Your task to perform on an android device: Open the stopwatch Image 0: 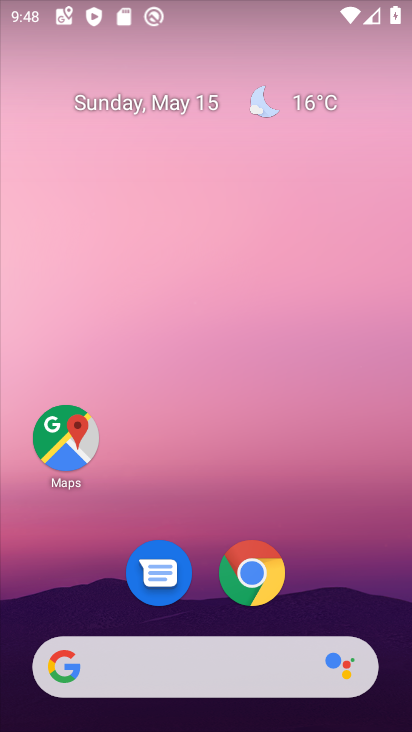
Step 0: drag from (346, 594) to (344, 63)
Your task to perform on an android device: Open the stopwatch Image 1: 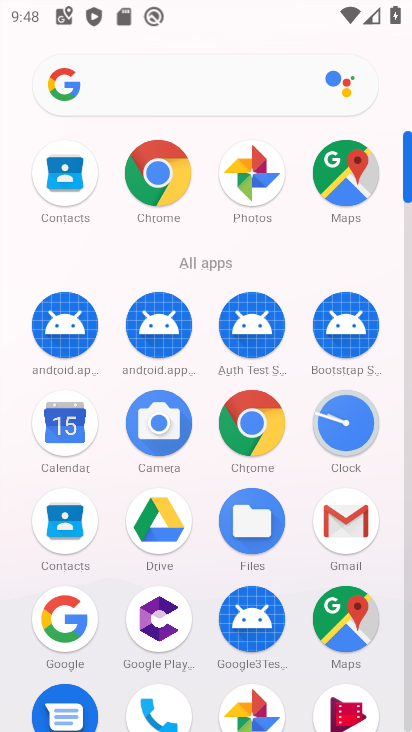
Step 1: click (397, 423)
Your task to perform on an android device: Open the stopwatch Image 2: 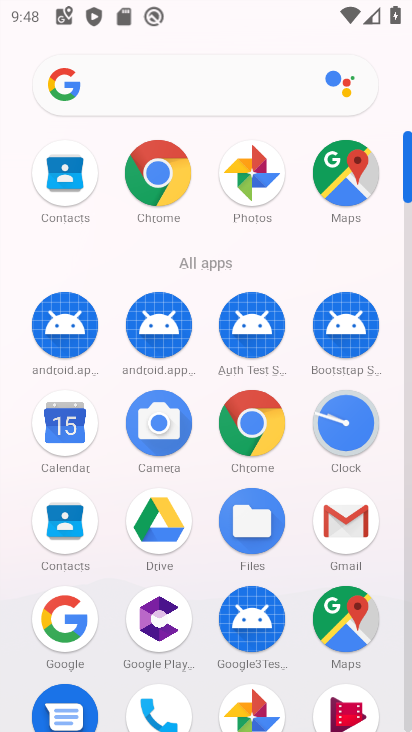
Step 2: click (354, 429)
Your task to perform on an android device: Open the stopwatch Image 3: 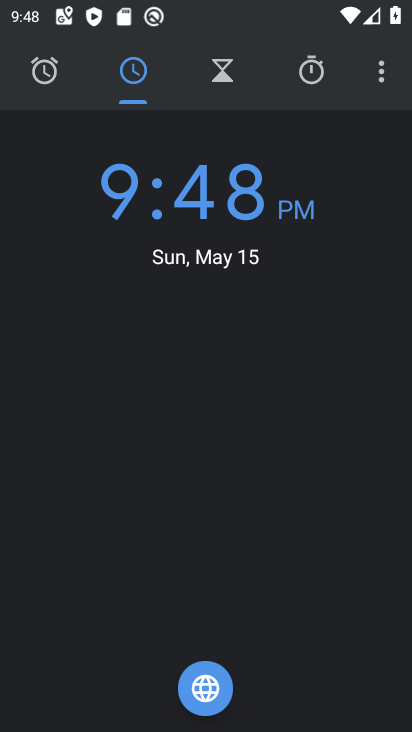
Step 3: click (380, 79)
Your task to perform on an android device: Open the stopwatch Image 4: 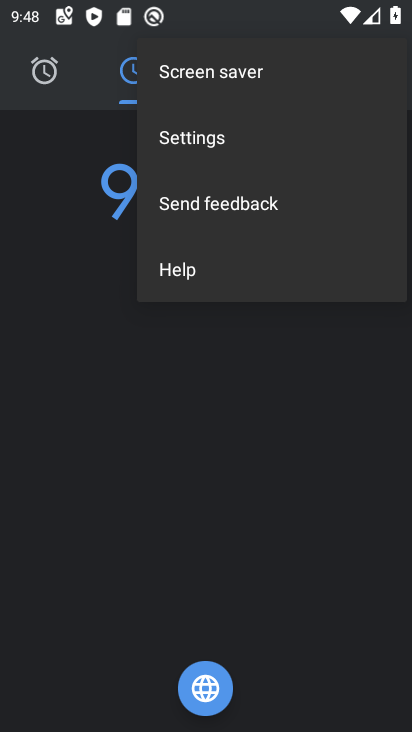
Step 4: click (332, 132)
Your task to perform on an android device: Open the stopwatch Image 5: 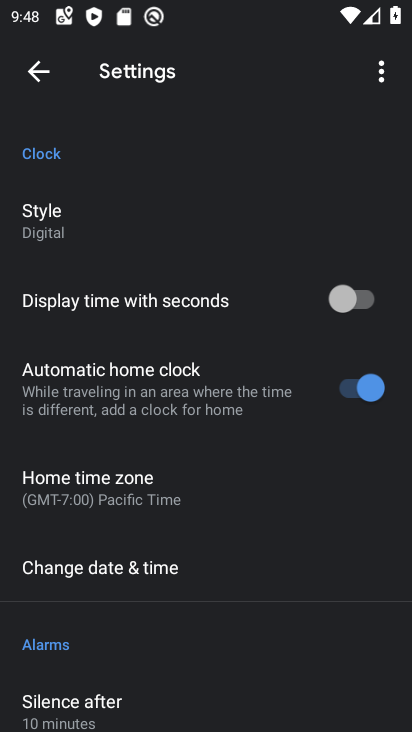
Step 5: click (21, 93)
Your task to perform on an android device: Open the stopwatch Image 6: 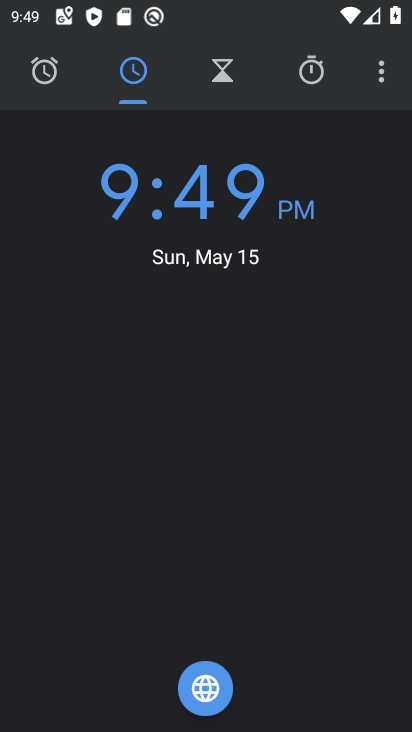
Step 6: click (287, 85)
Your task to perform on an android device: Open the stopwatch Image 7: 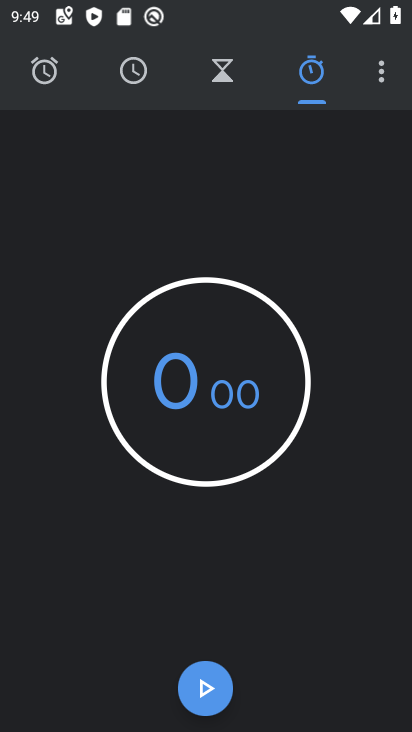
Step 7: task complete